Your task to perform on an android device: Open internet settings Image 0: 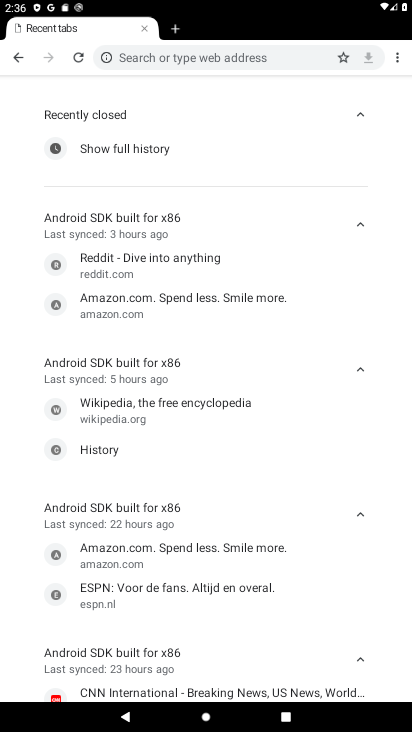
Step 0: press home button
Your task to perform on an android device: Open internet settings Image 1: 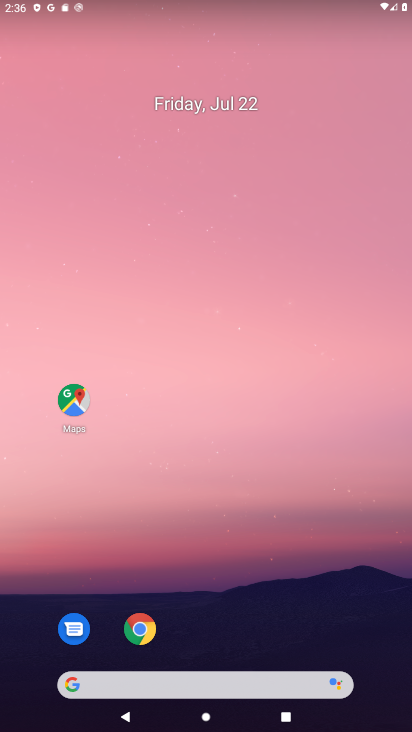
Step 1: drag from (240, 557) to (240, 106)
Your task to perform on an android device: Open internet settings Image 2: 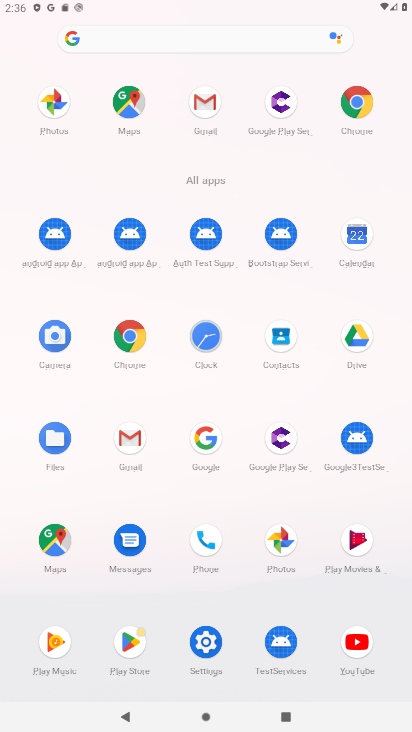
Step 2: click (205, 642)
Your task to perform on an android device: Open internet settings Image 3: 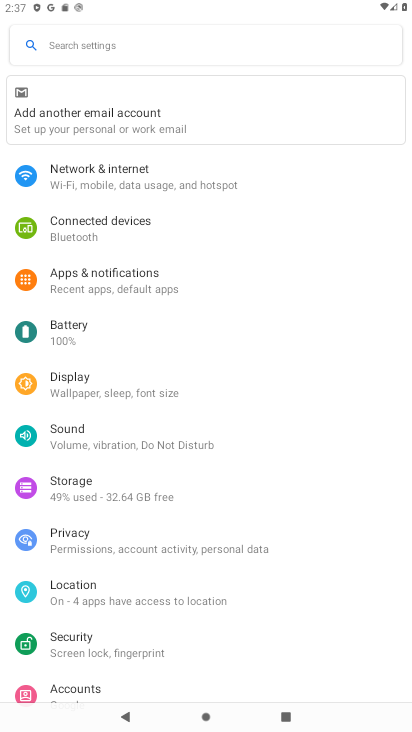
Step 3: click (107, 164)
Your task to perform on an android device: Open internet settings Image 4: 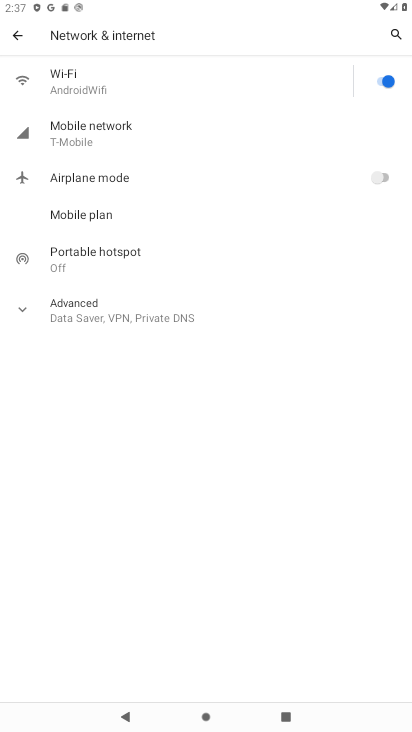
Step 4: click (100, 126)
Your task to perform on an android device: Open internet settings Image 5: 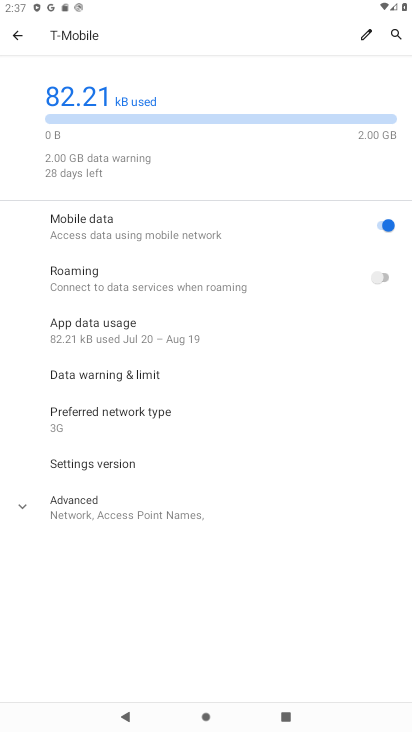
Step 5: task complete